Your task to perform on an android device: Open battery settings Image 0: 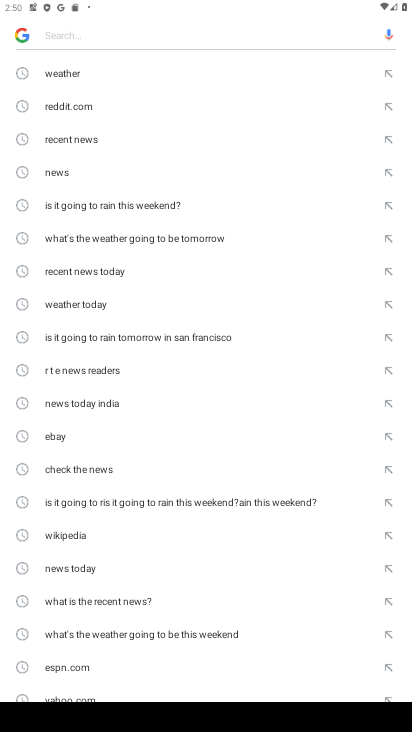
Step 0: press home button
Your task to perform on an android device: Open battery settings Image 1: 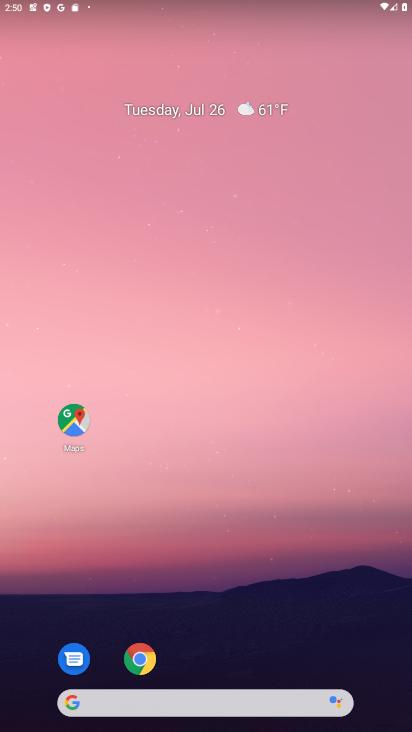
Step 1: drag from (361, 546) to (334, 87)
Your task to perform on an android device: Open battery settings Image 2: 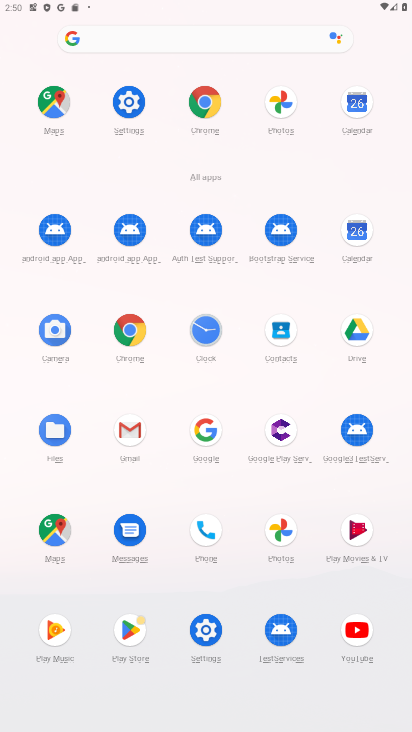
Step 2: click (139, 99)
Your task to perform on an android device: Open battery settings Image 3: 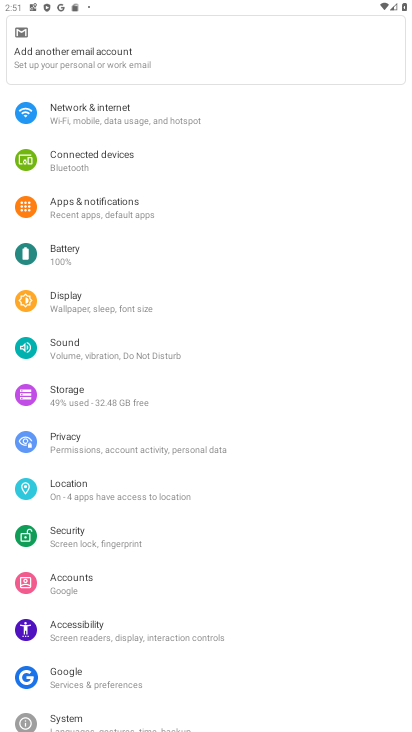
Step 3: click (62, 255)
Your task to perform on an android device: Open battery settings Image 4: 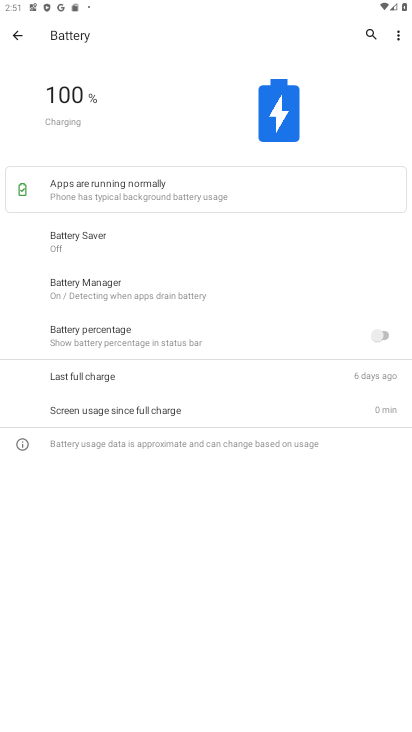
Step 4: task complete